Your task to perform on an android device: find which apps use the phone's location Image 0: 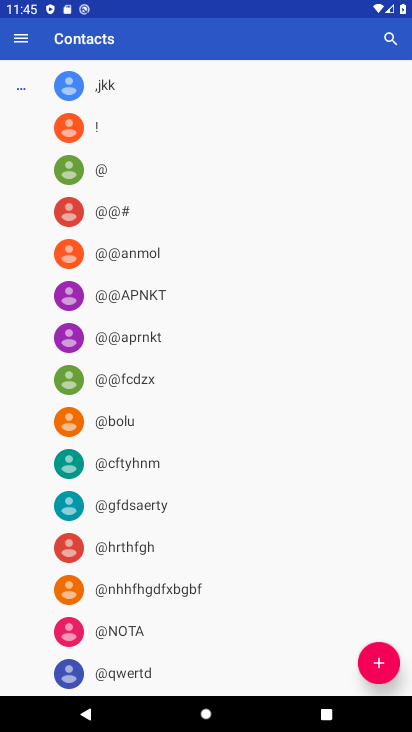
Step 0: press home button
Your task to perform on an android device: find which apps use the phone's location Image 1: 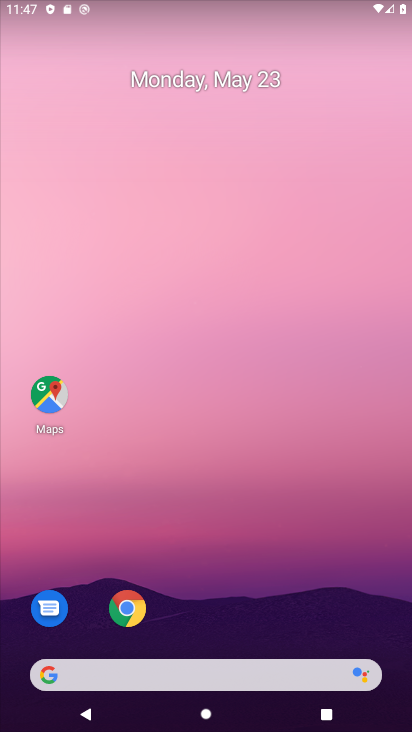
Step 1: drag from (304, 653) to (271, 168)
Your task to perform on an android device: find which apps use the phone's location Image 2: 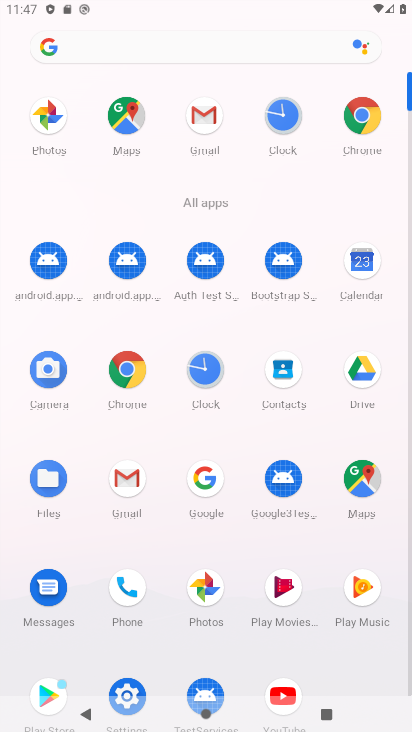
Step 2: click (127, 678)
Your task to perform on an android device: find which apps use the phone's location Image 3: 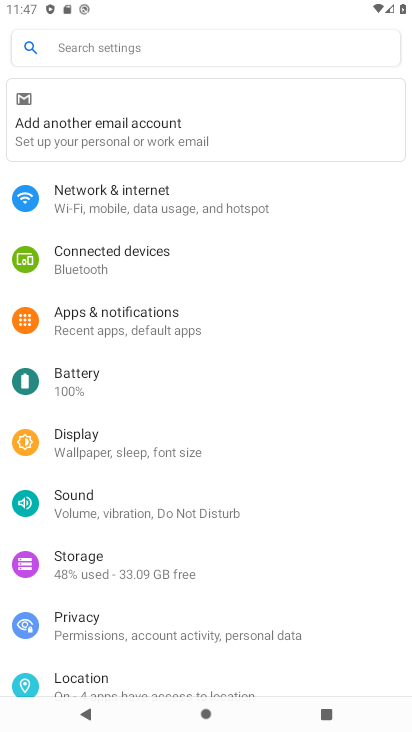
Step 3: click (107, 683)
Your task to perform on an android device: find which apps use the phone's location Image 4: 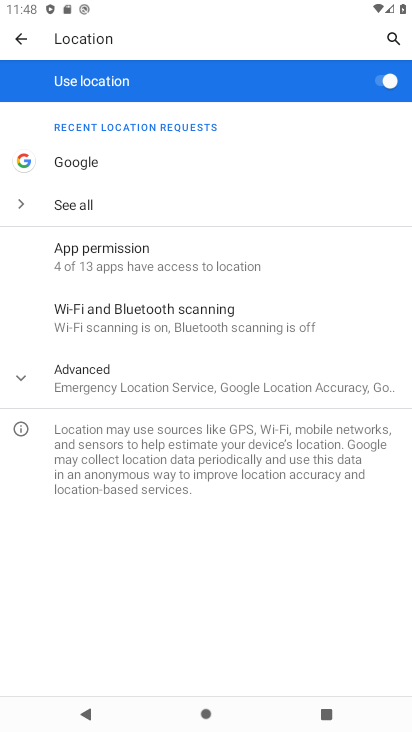
Step 4: task complete